Your task to perform on an android device: See recent photos Image 0: 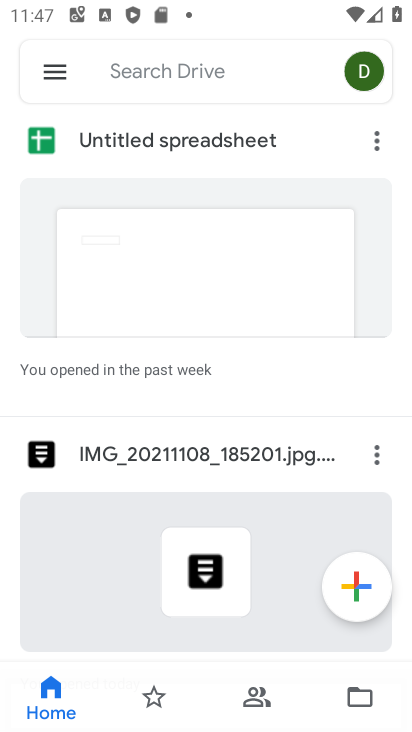
Step 0: press home button
Your task to perform on an android device: See recent photos Image 1: 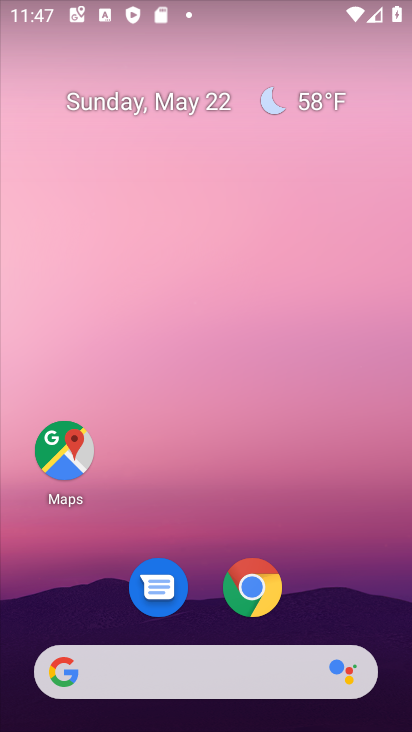
Step 1: drag from (218, 512) to (241, 37)
Your task to perform on an android device: See recent photos Image 2: 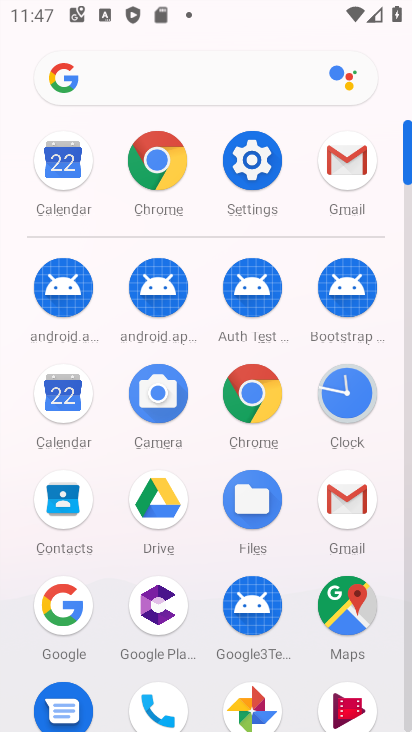
Step 2: click (248, 698)
Your task to perform on an android device: See recent photos Image 3: 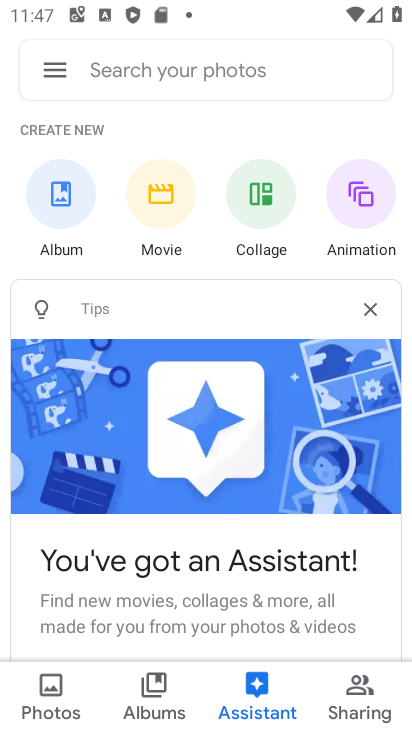
Step 3: click (53, 689)
Your task to perform on an android device: See recent photos Image 4: 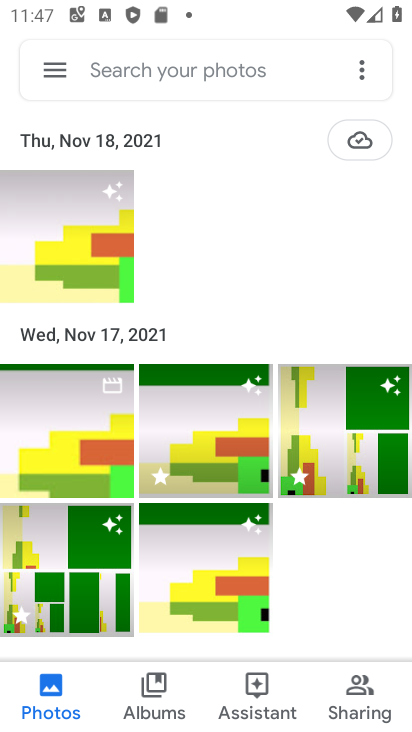
Step 4: task complete